Your task to perform on an android device: Go to Yahoo.com Image 0: 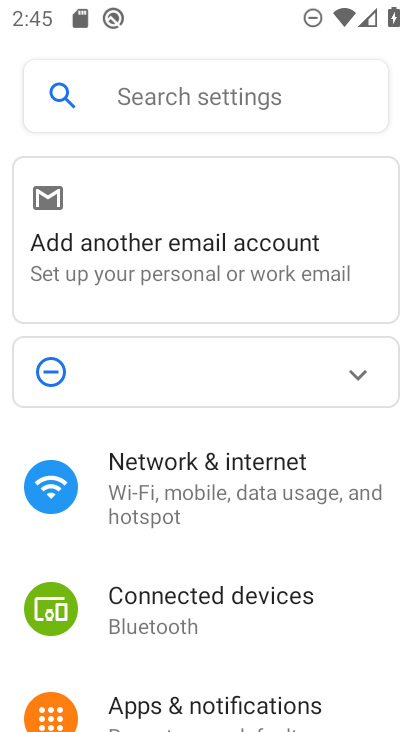
Step 0: press home button
Your task to perform on an android device: Go to Yahoo.com Image 1: 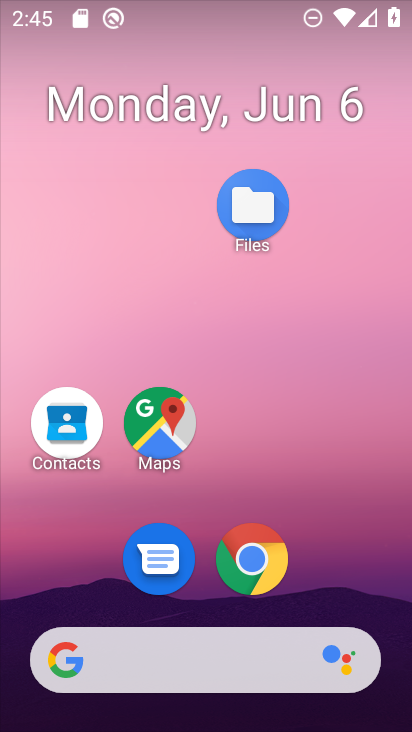
Step 1: click (277, 574)
Your task to perform on an android device: Go to Yahoo.com Image 2: 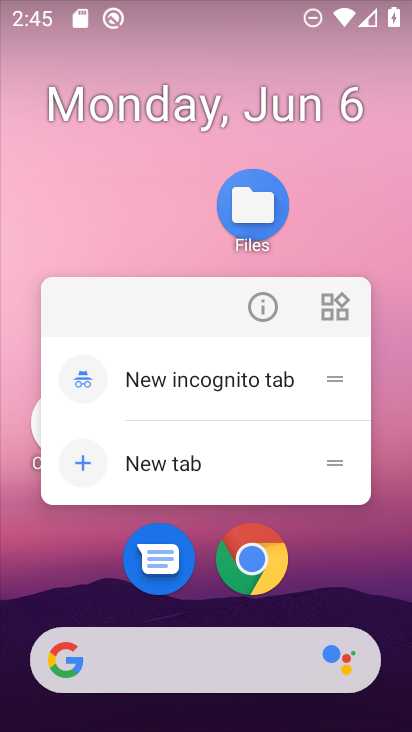
Step 2: click (279, 572)
Your task to perform on an android device: Go to Yahoo.com Image 3: 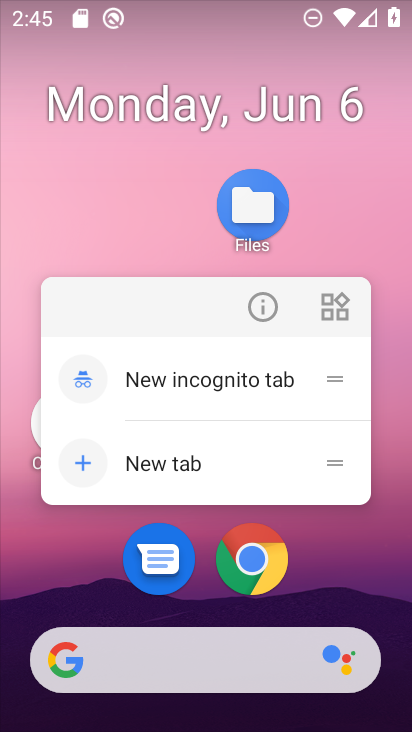
Step 3: click (279, 572)
Your task to perform on an android device: Go to Yahoo.com Image 4: 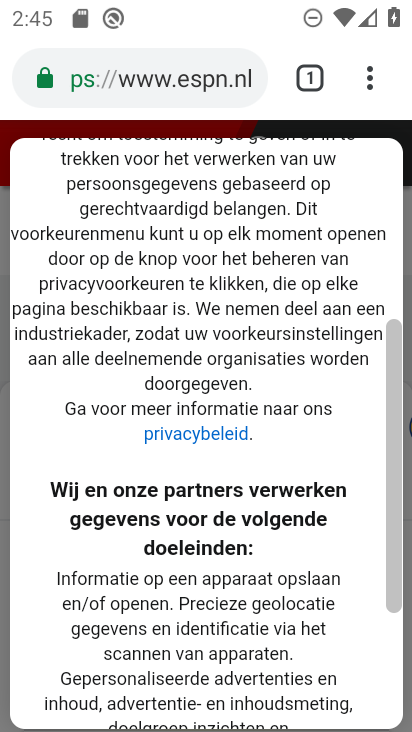
Step 4: click (214, 78)
Your task to perform on an android device: Go to Yahoo.com Image 5: 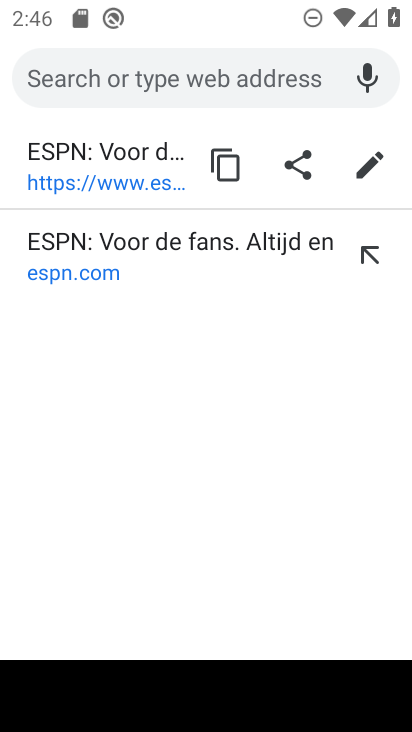
Step 5: type "yahoo"
Your task to perform on an android device: Go to Yahoo.com Image 6: 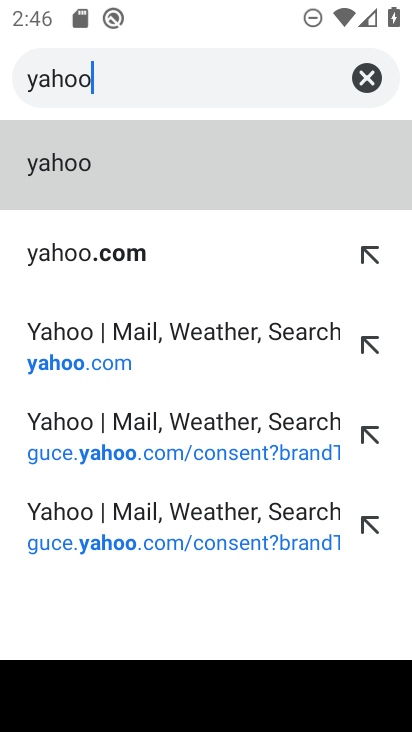
Step 6: click (152, 340)
Your task to perform on an android device: Go to Yahoo.com Image 7: 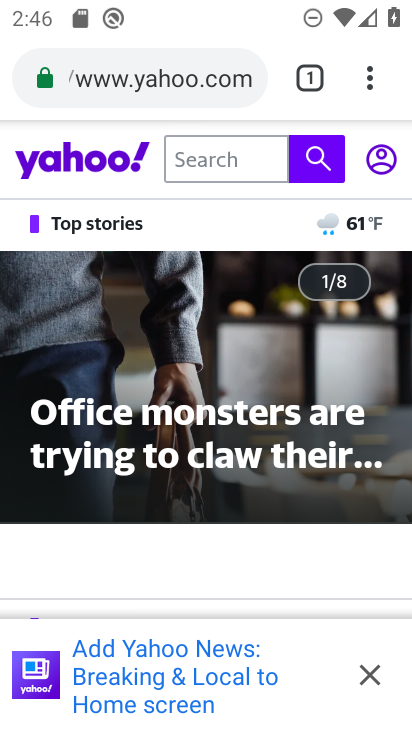
Step 7: task complete